Your task to perform on an android device: See recent photos Image 0: 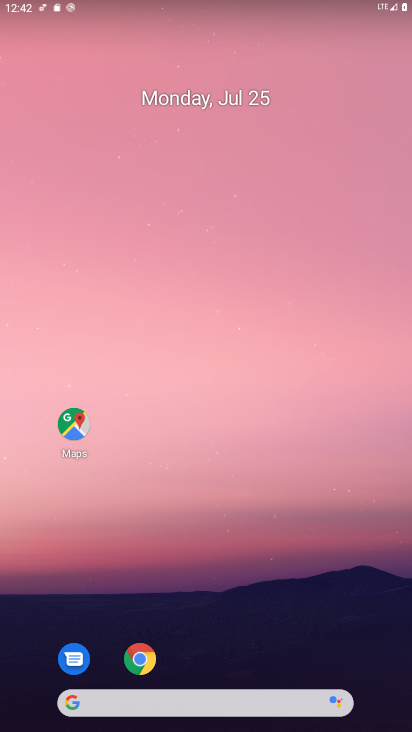
Step 0: drag from (211, 670) to (201, 9)
Your task to perform on an android device: See recent photos Image 1: 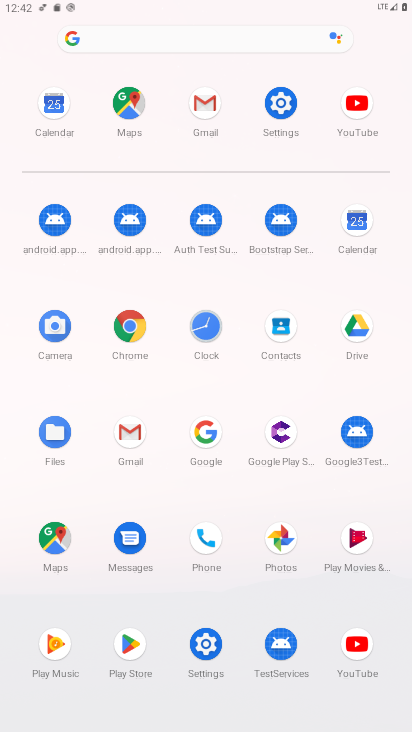
Step 1: click (280, 530)
Your task to perform on an android device: See recent photos Image 2: 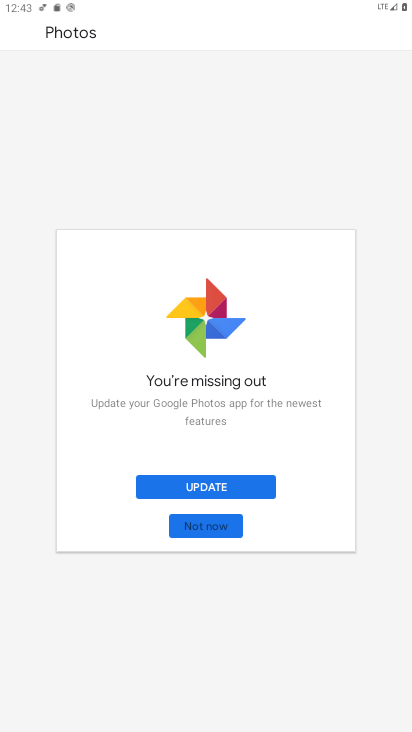
Step 2: click (206, 481)
Your task to perform on an android device: See recent photos Image 3: 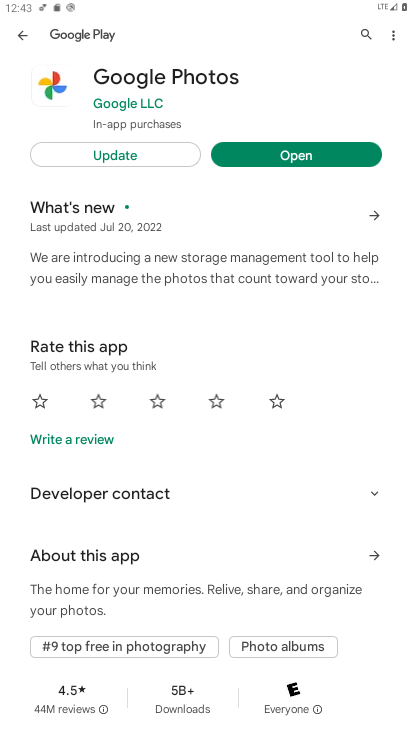
Step 3: press back button
Your task to perform on an android device: See recent photos Image 4: 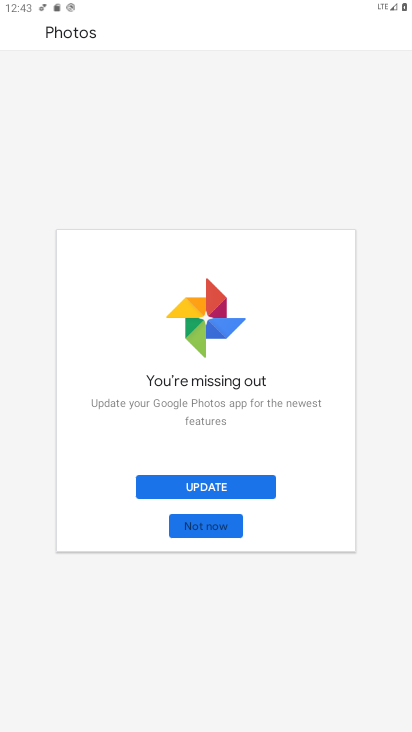
Step 4: click (205, 487)
Your task to perform on an android device: See recent photos Image 5: 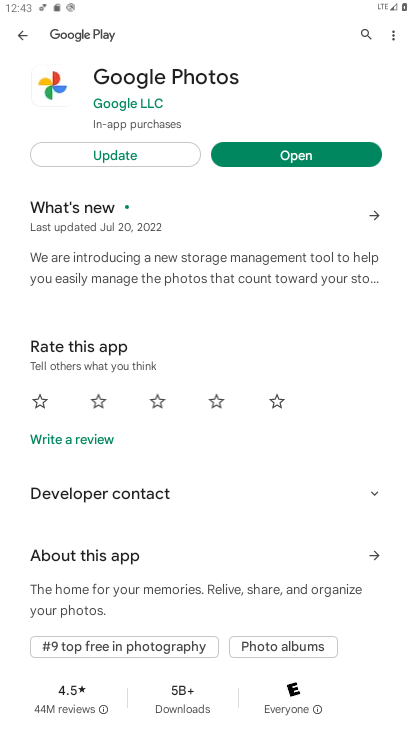
Step 5: click (126, 161)
Your task to perform on an android device: See recent photos Image 6: 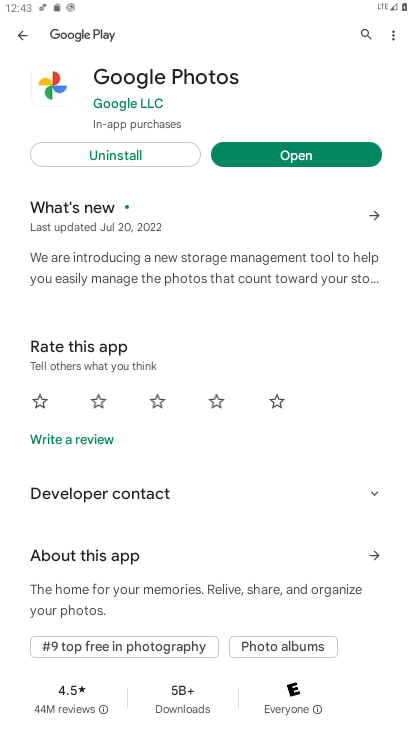
Step 6: click (284, 157)
Your task to perform on an android device: See recent photos Image 7: 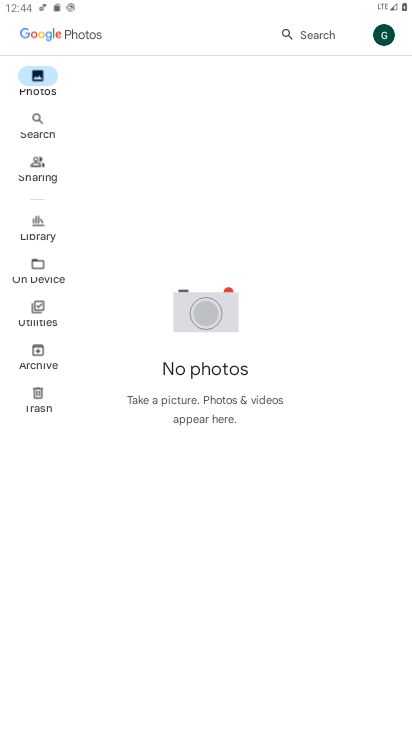
Step 7: task complete